Your task to perform on an android device: Open sound settings Image 0: 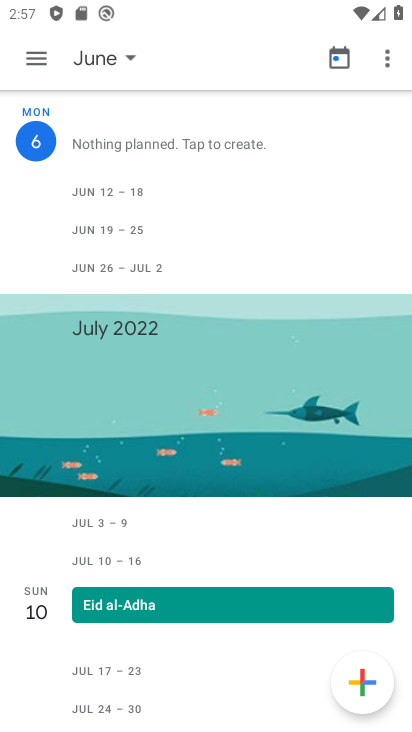
Step 0: press home button
Your task to perform on an android device: Open sound settings Image 1: 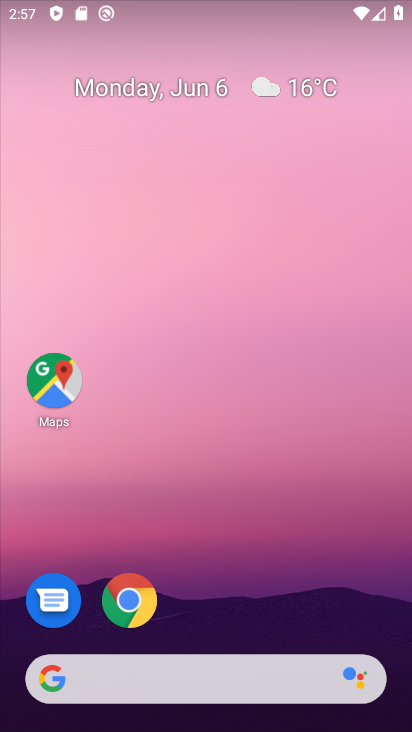
Step 1: drag from (241, 500) to (226, 25)
Your task to perform on an android device: Open sound settings Image 2: 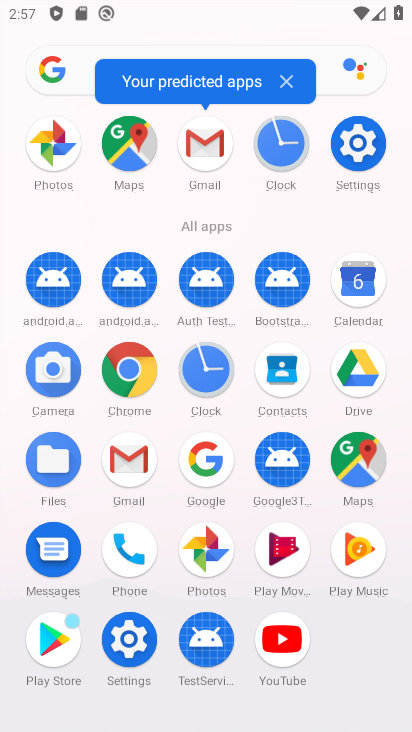
Step 2: click (357, 143)
Your task to perform on an android device: Open sound settings Image 3: 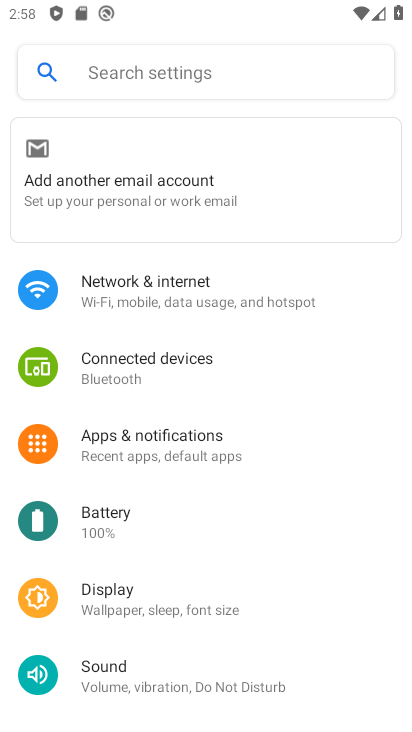
Step 3: drag from (165, 555) to (195, 469)
Your task to perform on an android device: Open sound settings Image 4: 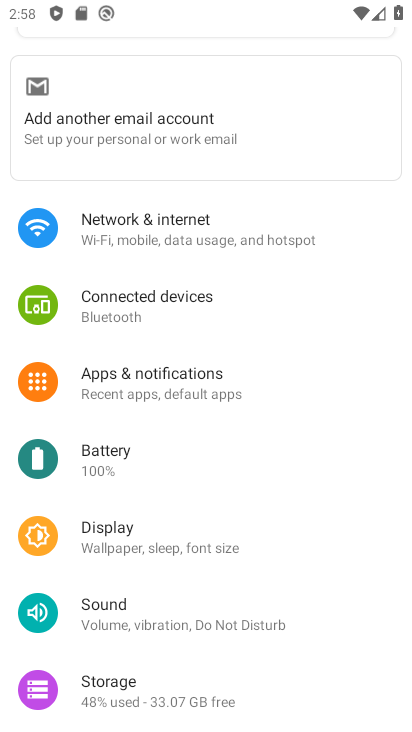
Step 4: click (175, 610)
Your task to perform on an android device: Open sound settings Image 5: 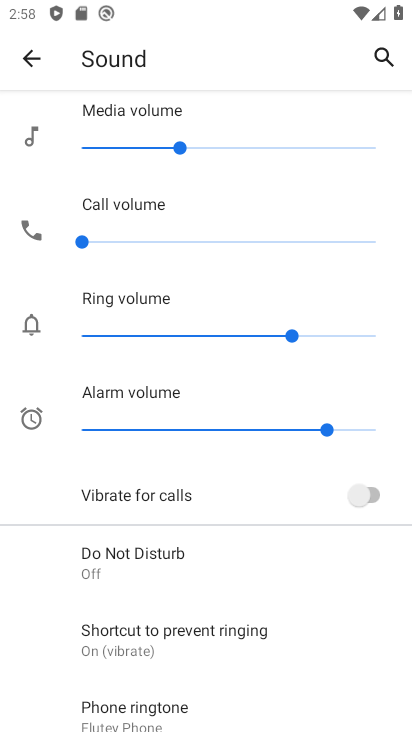
Step 5: task complete